Your task to perform on an android device: Do I have any events this weekend? Image 0: 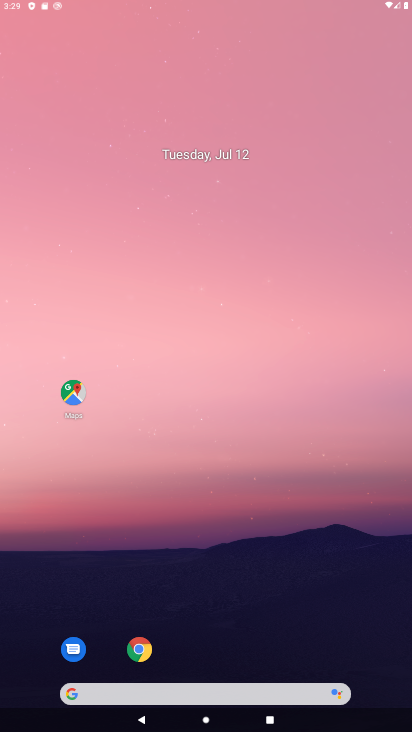
Step 0: press home button
Your task to perform on an android device: Do I have any events this weekend? Image 1: 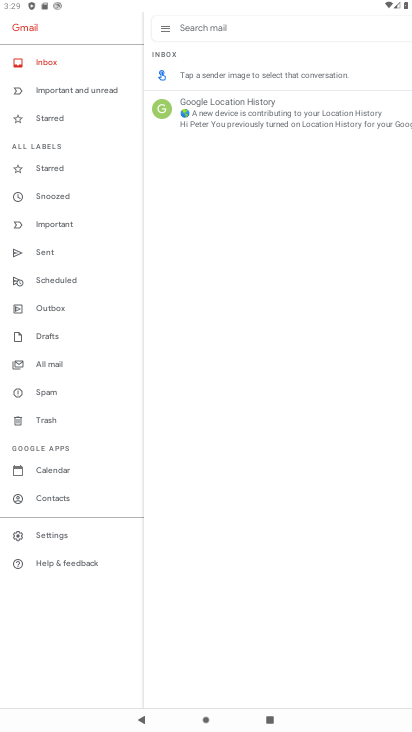
Step 1: drag from (221, 484) to (265, 58)
Your task to perform on an android device: Do I have any events this weekend? Image 2: 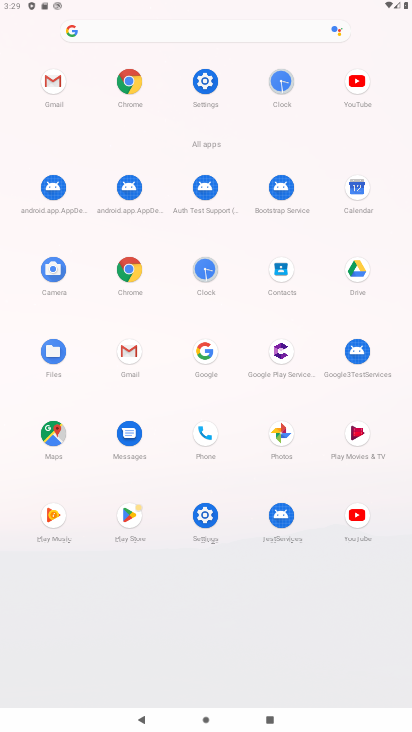
Step 2: click (280, 426)
Your task to perform on an android device: Do I have any events this weekend? Image 3: 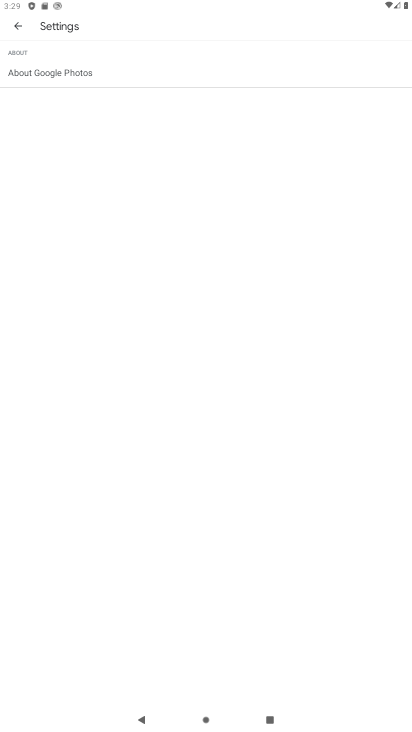
Step 3: press home button
Your task to perform on an android device: Do I have any events this weekend? Image 4: 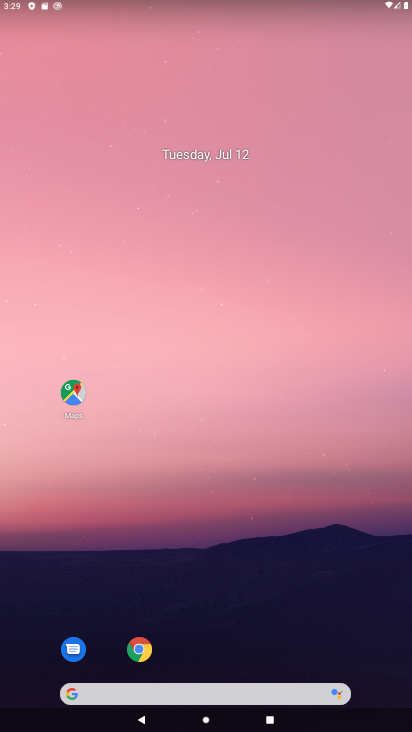
Step 4: drag from (220, 674) to (275, 22)
Your task to perform on an android device: Do I have any events this weekend? Image 5: 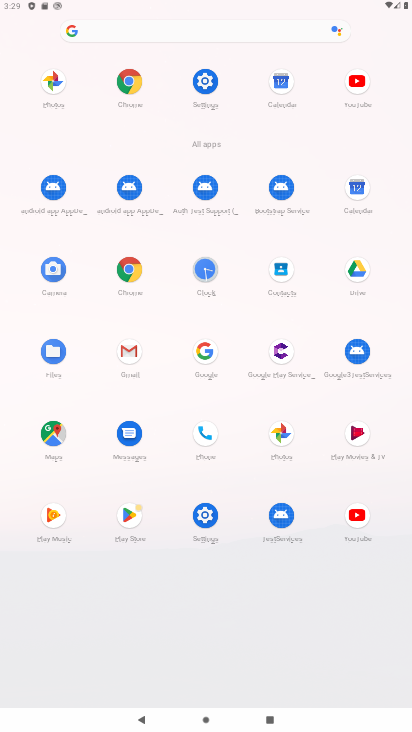
Step 5: click (355, 179)
Your task to perform on an android device: Do I have any events this weekend? Image 6: 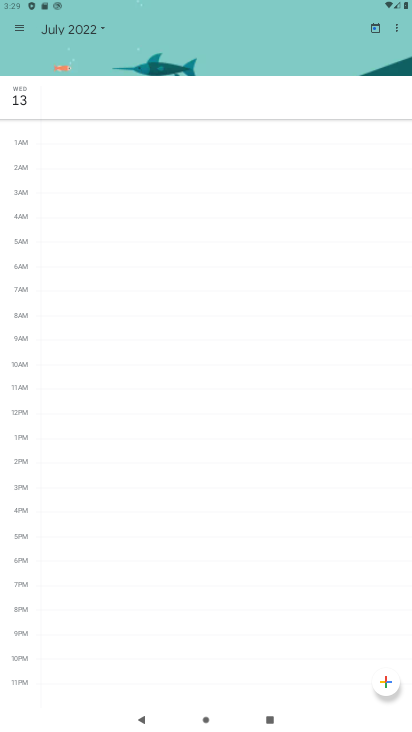
Step 6: click (93, 30)
Your task to perform on an android device: Do I have any events this weekend? Image 7: 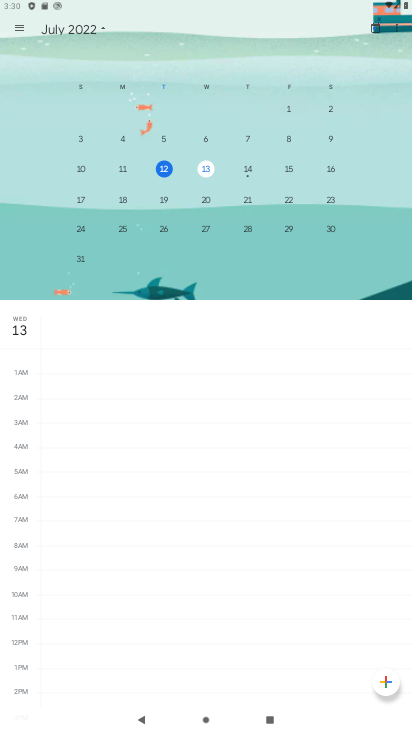
Step 7: click (280, 166)
Your task to perform on an android device: Do I have any events this weekend? Image 8: 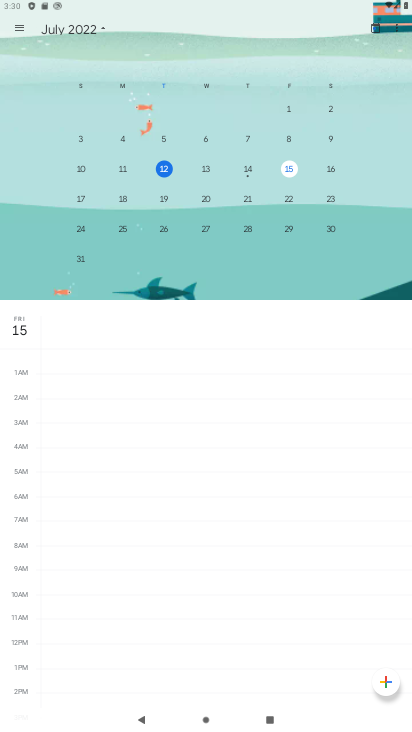
Step 8: click (289, 166)
Your task to perform on an android device: Do I have any events this weekend? Image 9: 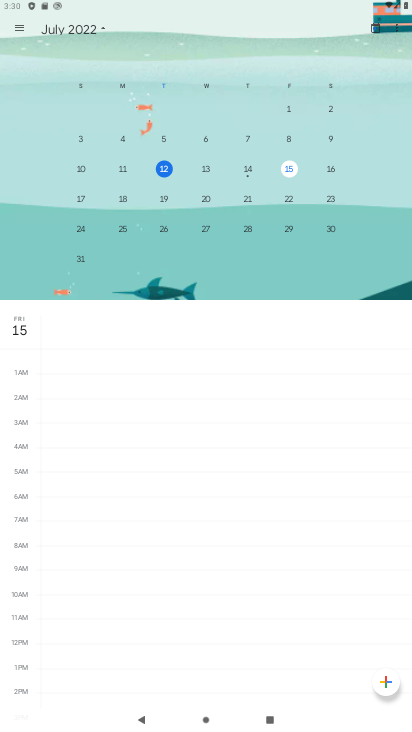
Step 9: click (100, 25)
Your task to perform on an android device: Do I have any events this weekend? Image 10: 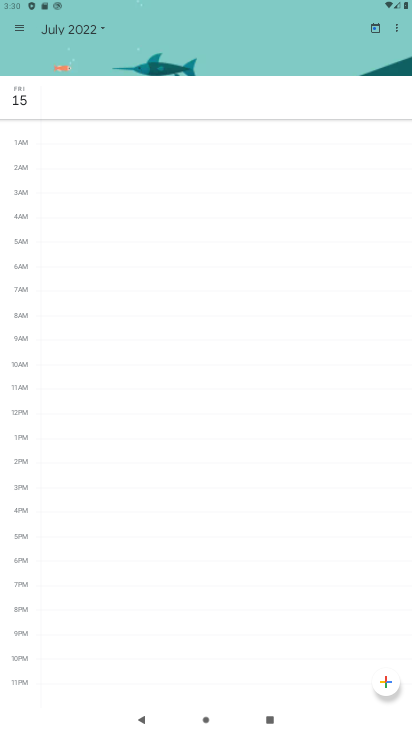
Step 10: click (23, 102)
Your task to perform on an android device: Do I have any events this weekend? Image 11: 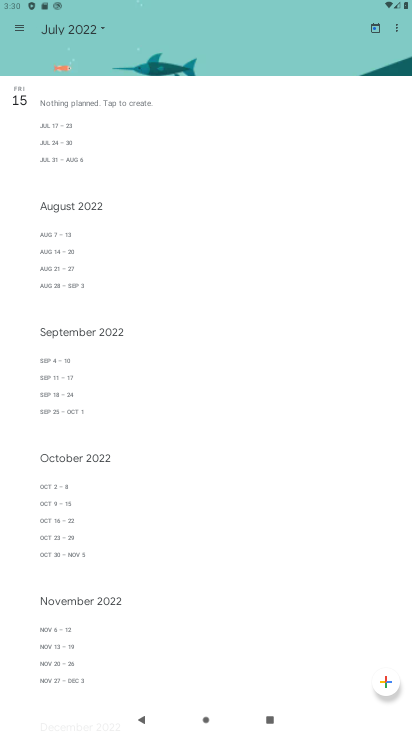
Step 11: click (21, 24)
Your task to perform on an android device: Do I have any events this weekend? Image 12: 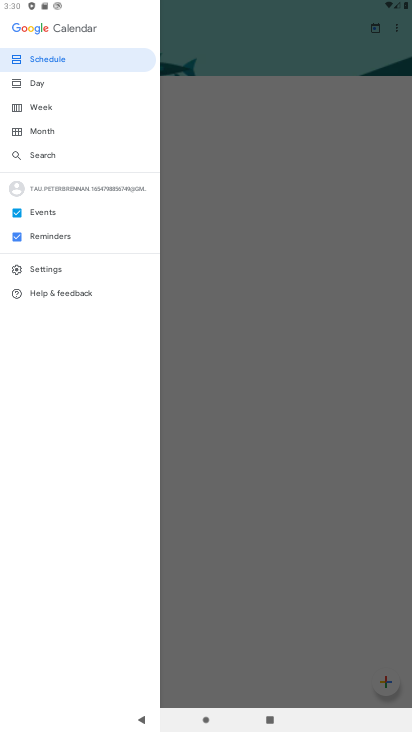
Step 12: click (60, 103)
Your task to perform on an android device: Do I have any events this weekend? Image 13: 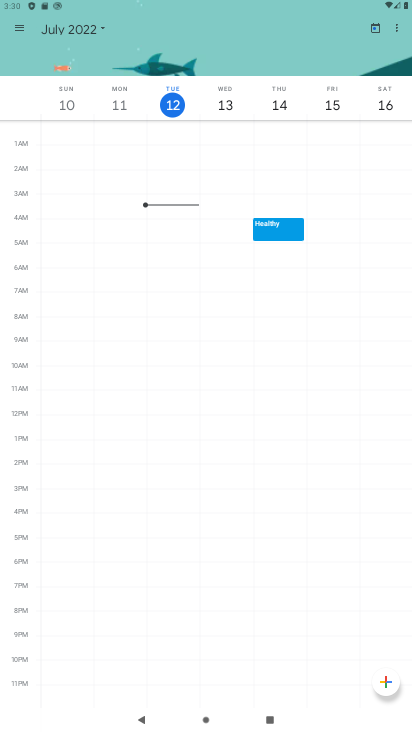
Step 13: task complete